Your task to perform on an android device: open chrome and create a bookmark for the current page Image 0: 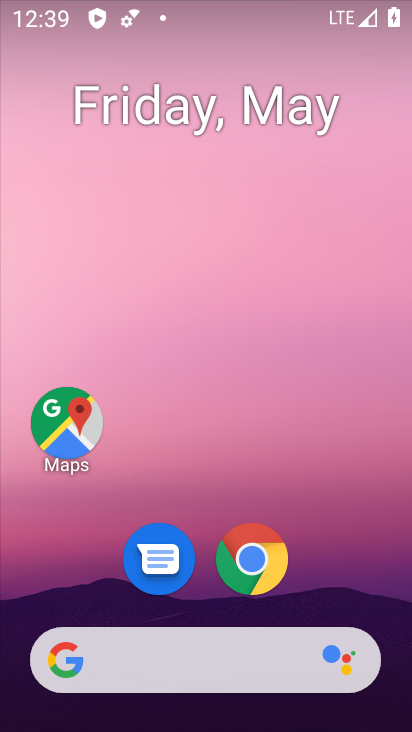
Step 0: drag from (364, 536) to (392, 148)
Your task to perform on an android device: open chrome and create a bookmark for the current page Image 1: 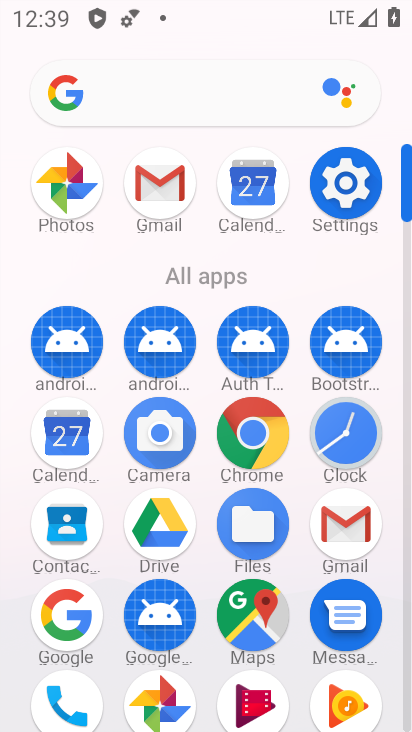
Step 1: click (249, 434)
Your task to perform on an android device: open chrome and create a bookmark for the current page Image 2: 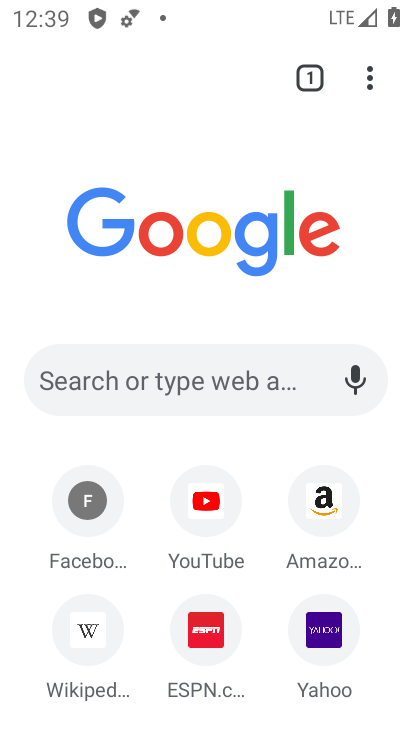
Step 2: task complete